Your task to perform on an android device: check data usage Image 0: 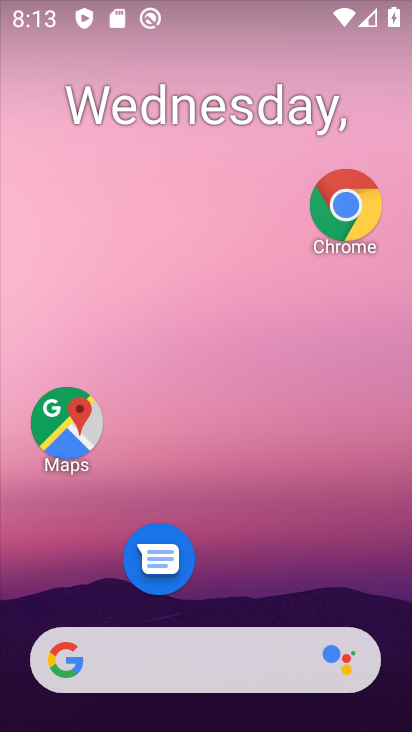
Step 0: drag from (226, 435) to (291, 79)
Your task to perform on an android device: check data usage Image 1: 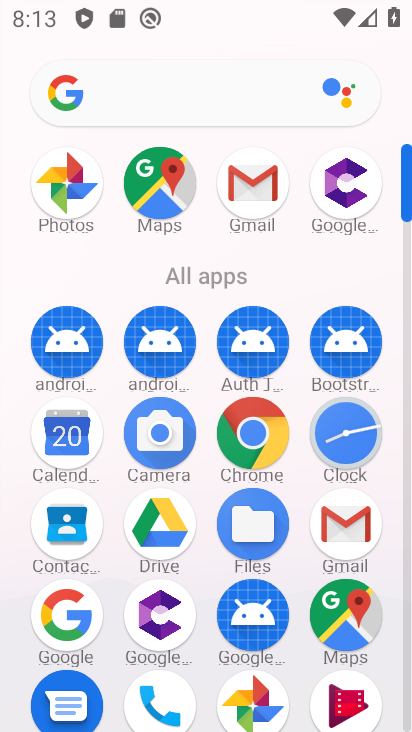
Step 1: drag from (199, 585) to (204, 121)
Your task to perform on an android device: check data usage Image 2: 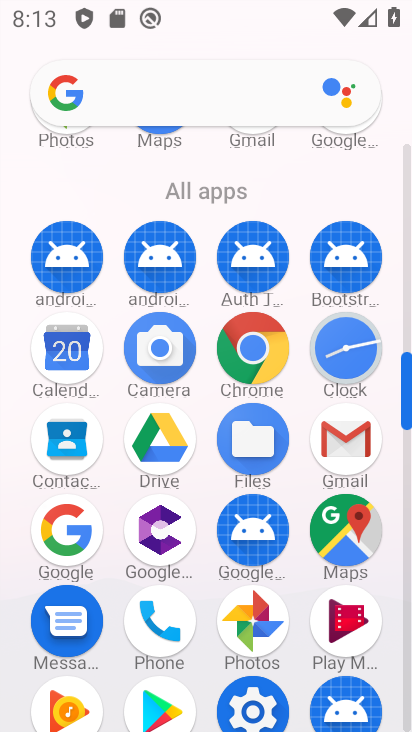
Step 2: click (250, 693)
Your task to perform on an android device: check data usage Image 3: 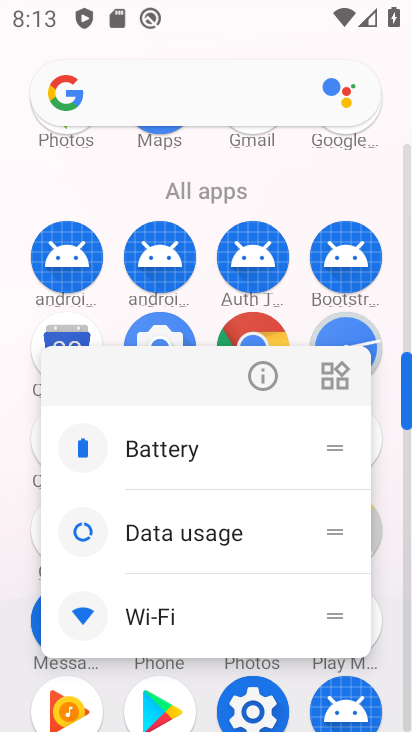
Step 3: click (274, 374)
Your task to perform on an android device: check data usage Image 4: 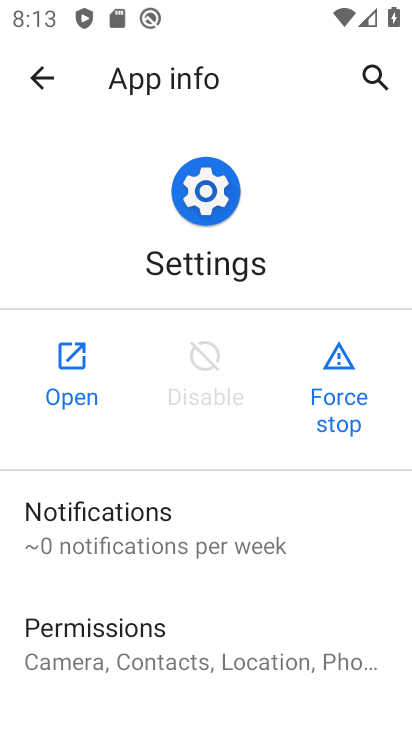
Step 4: click (77, 364)
Your task to perform on an android device: check data usage Image 5: 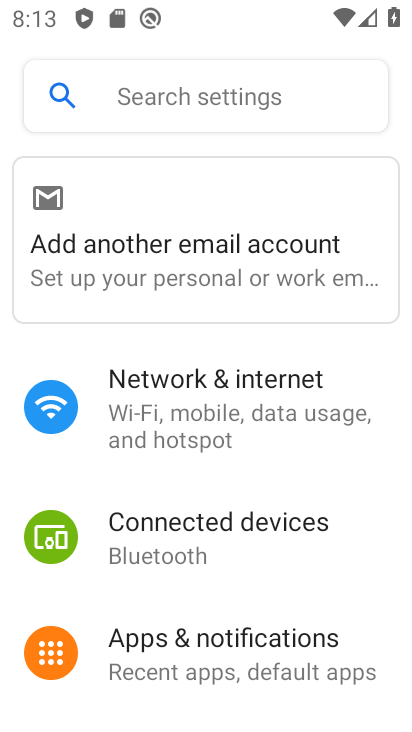
Step 5: click (225, 397)
Your task to perform on an android device: check data usage Image 6: 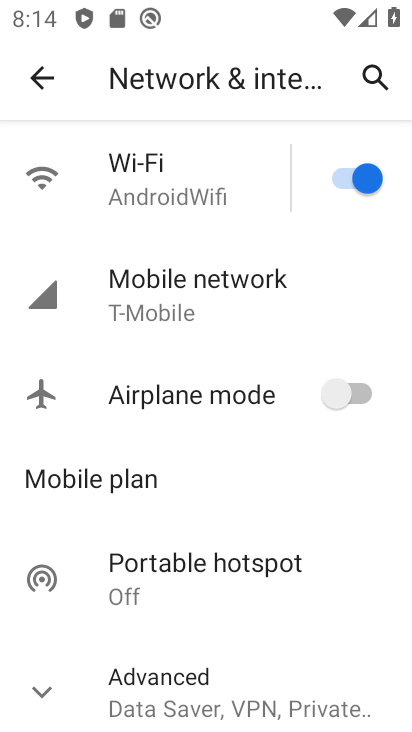
Step 6: click (255, 271)
Your task to perform on an android device: check data usage Image 7: 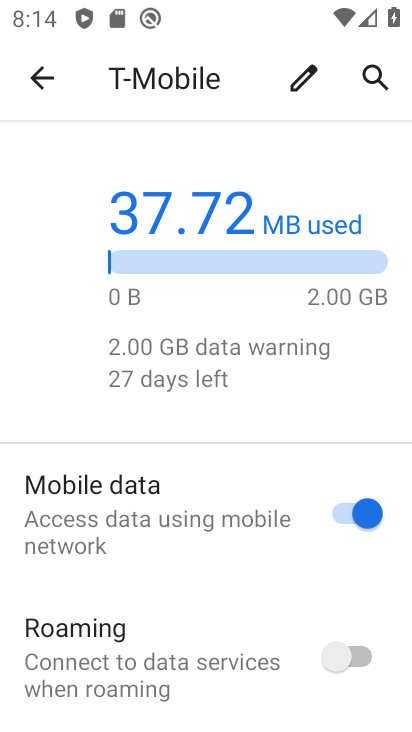
Step 7: task complete